Your task to perform on an android device: Open Chrome and go to settings Image 0: 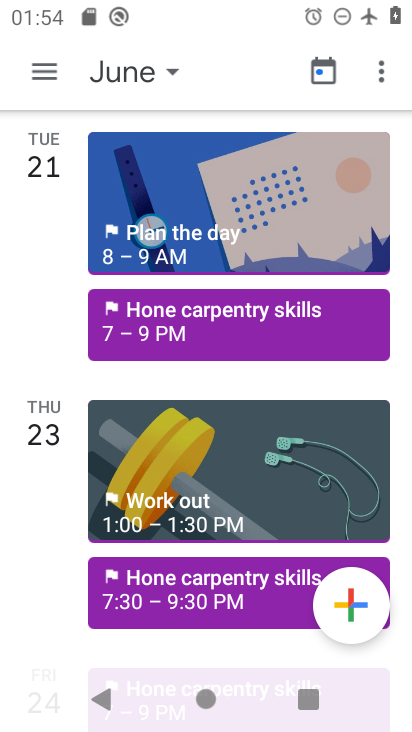
Step 0: press home button
Your task to perform on an android device: Open Chrome and go to settings Image 1: 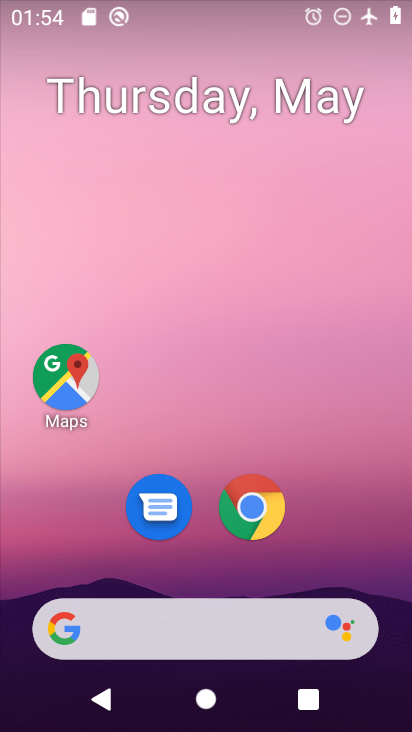
Step 1: click (271, 508)
Your task to perform on an android device: Open Chrome and go to settings Image 2: 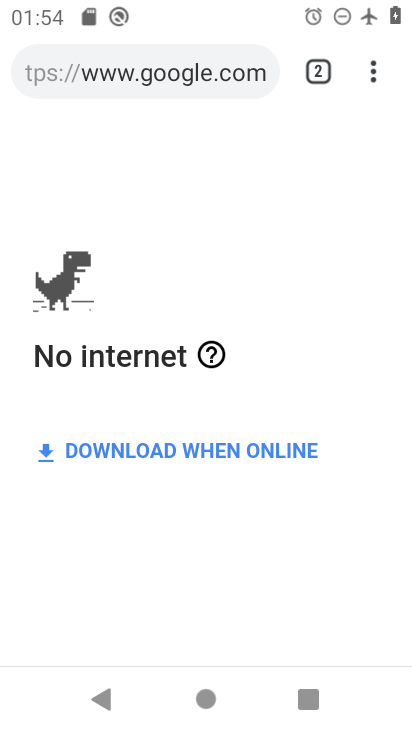
Step 2: click (366, 50)
Your task to perform on an android device: Open Chrome and go to settings Image 3: 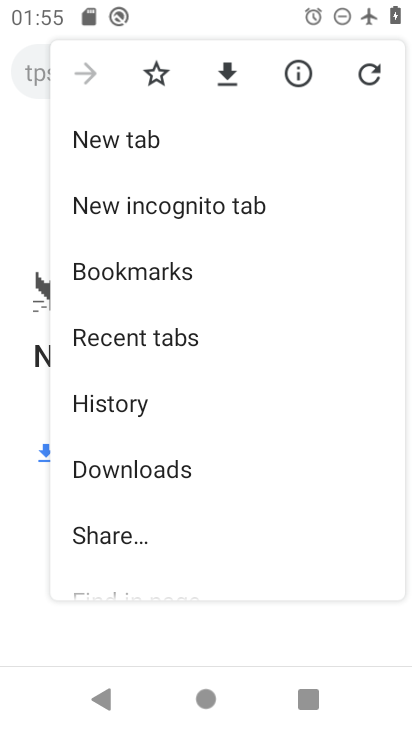
Step 3: drag from (185, 437) to (158, 83)
Your task to perform on an android device: Open Chrome and go to settings Image 4: 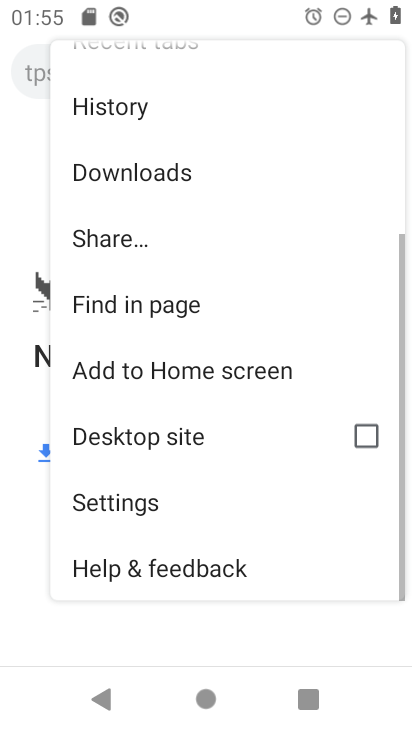
Step 4: click (110, 489)
Your task to perform on an android device: Open Chrome and go to settings Image 5: 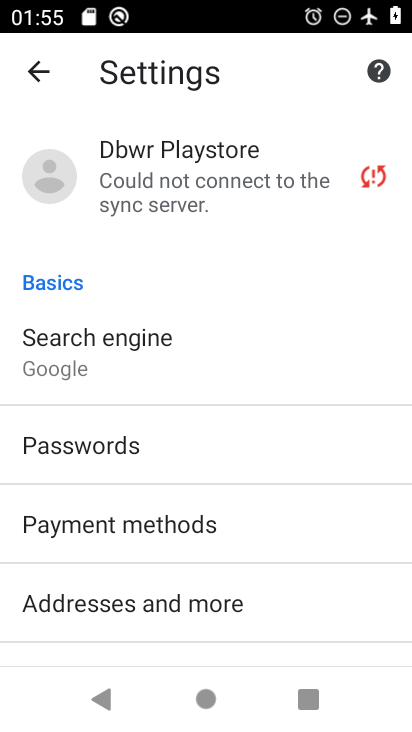
Step 5: task complete